Your task to perform on an android device: When is my next meeting? Image 0: 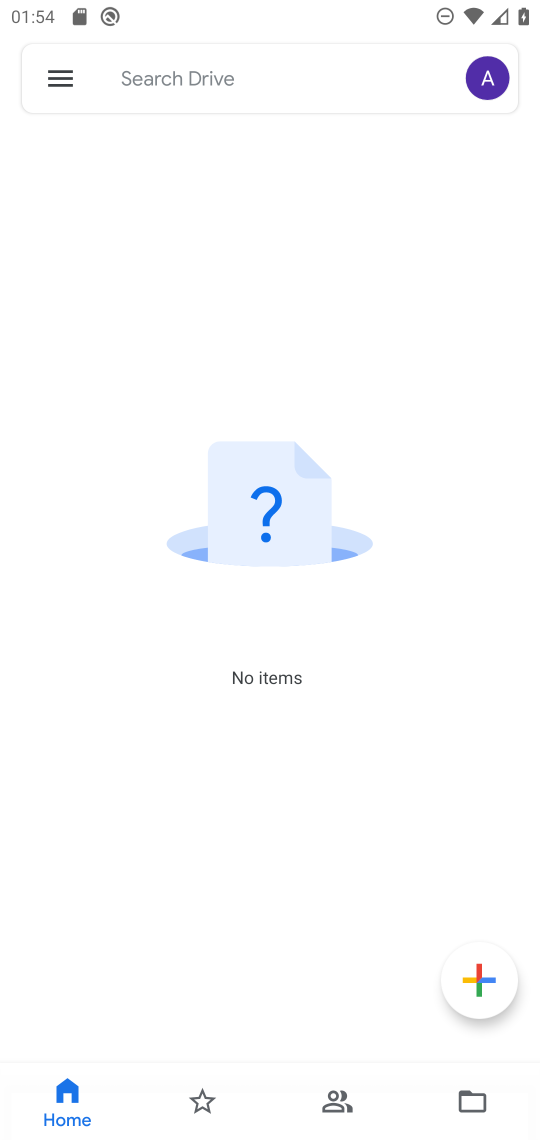
Step 0: press home button
Your task to perform on an android device: When is my next meeting? Image 1: 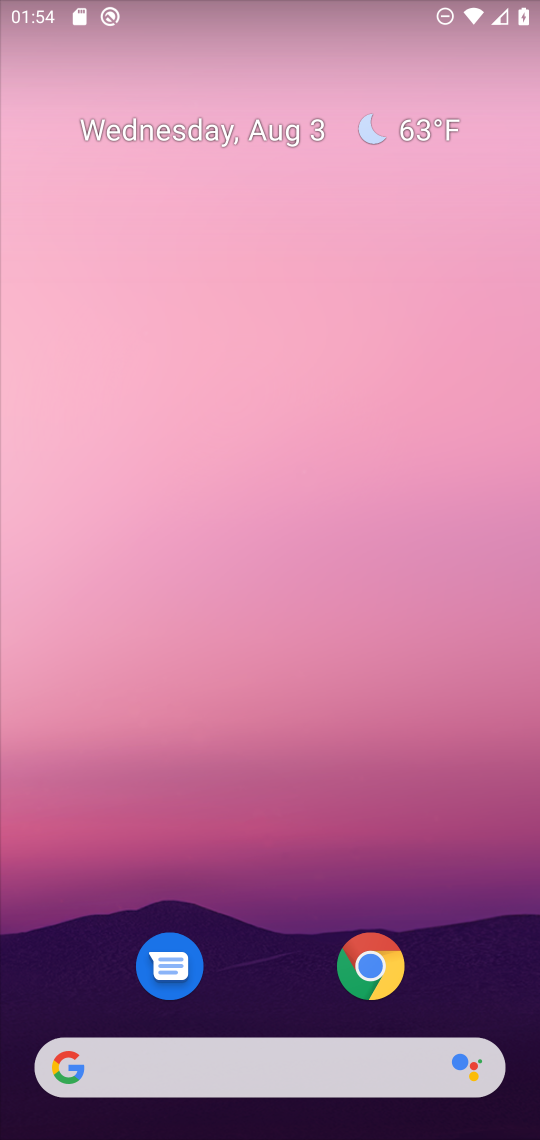
Step 1: drag from (241, 984) to (203, 422)
Your task to perform on an android device: When is my next meeting? Image 2: 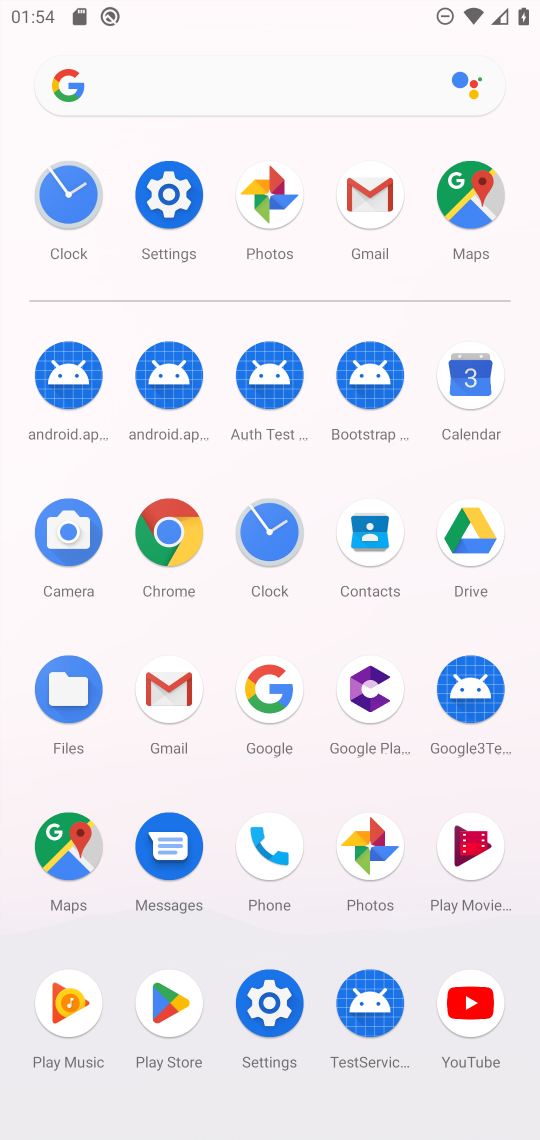
Step 2: click (488, 373)
Your task to perform on an android device: When is my next meeting? Image 3: 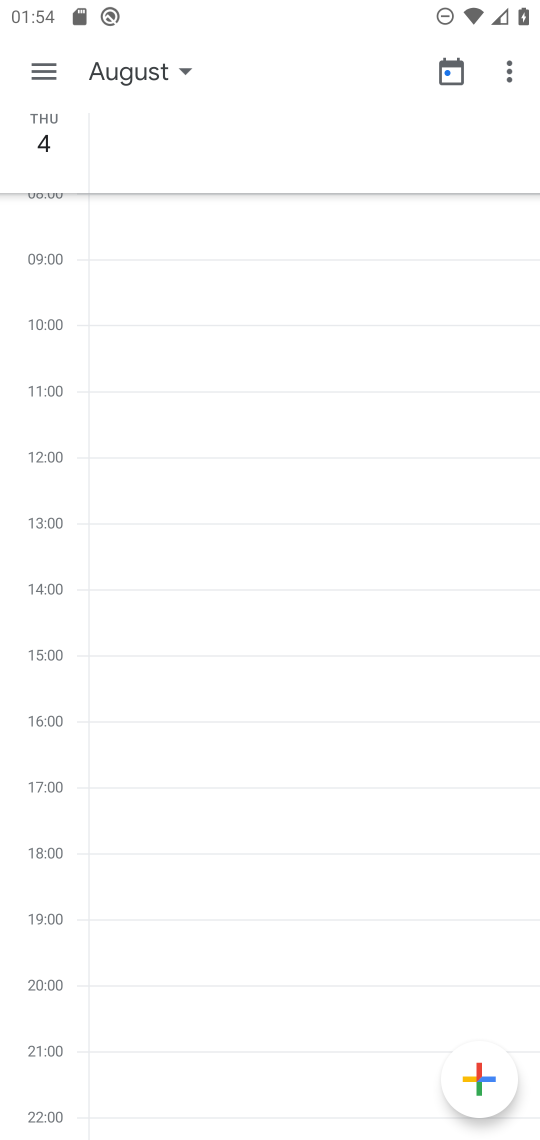
Step 3: click (160, 65)
Your task to perform on an android device: When is my next meeting? Image 4: 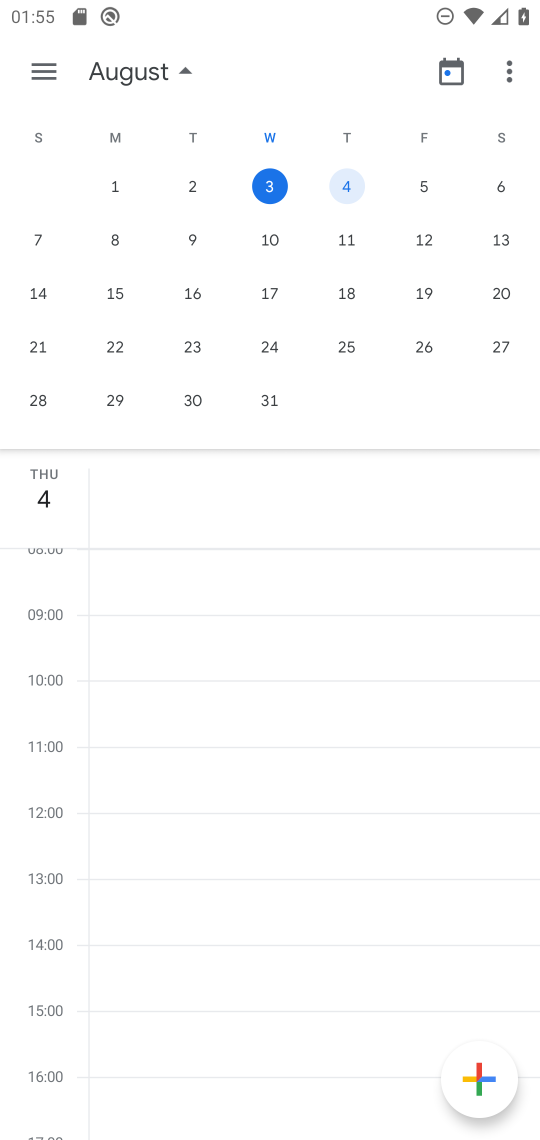
Step 4: click (338, 199)
Your task to perform on an android device: When is my next meeting? Image 5: 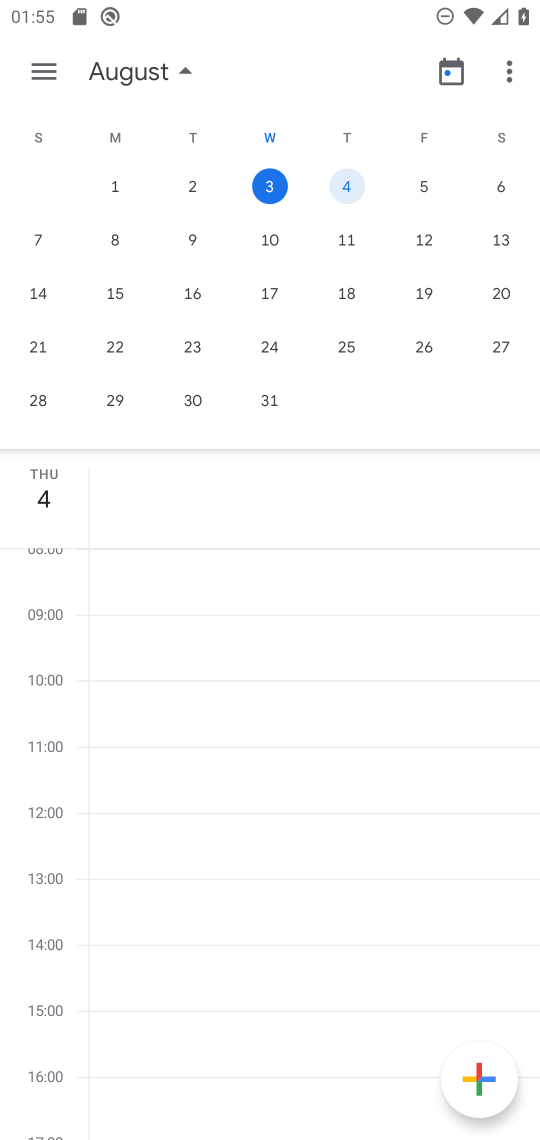
Step 5: click (342, 199)
Your task to perform on an android device: When is my next meeting? Image 6: 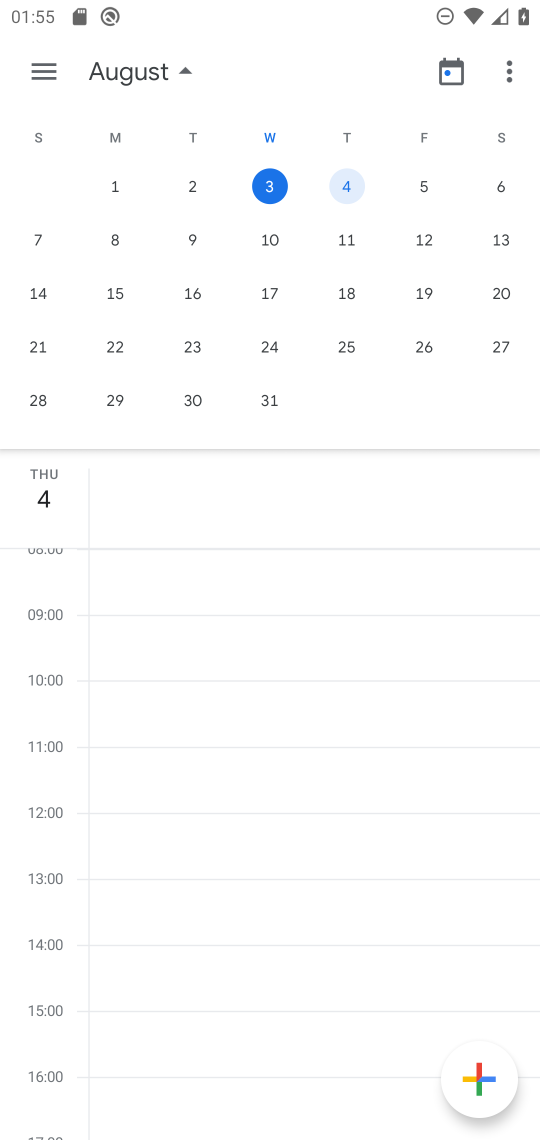
Step 6: click (412, 176)
Your task to perform on an android device: When is my next meeting? Image 7: 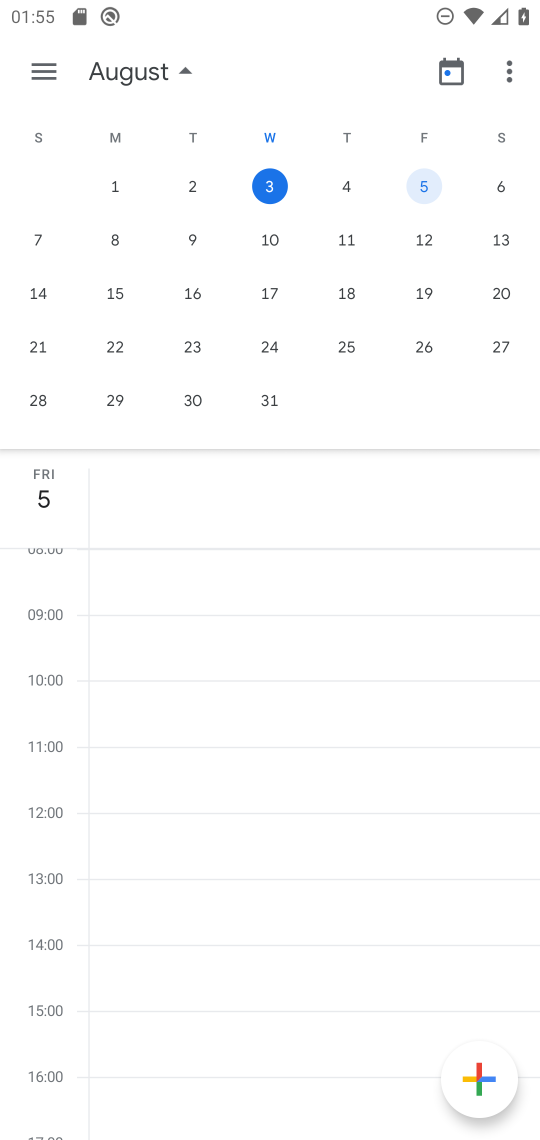
Step 7: click (344, 194)
Your task to perform on an android device: When is my next meeting? Image 8: 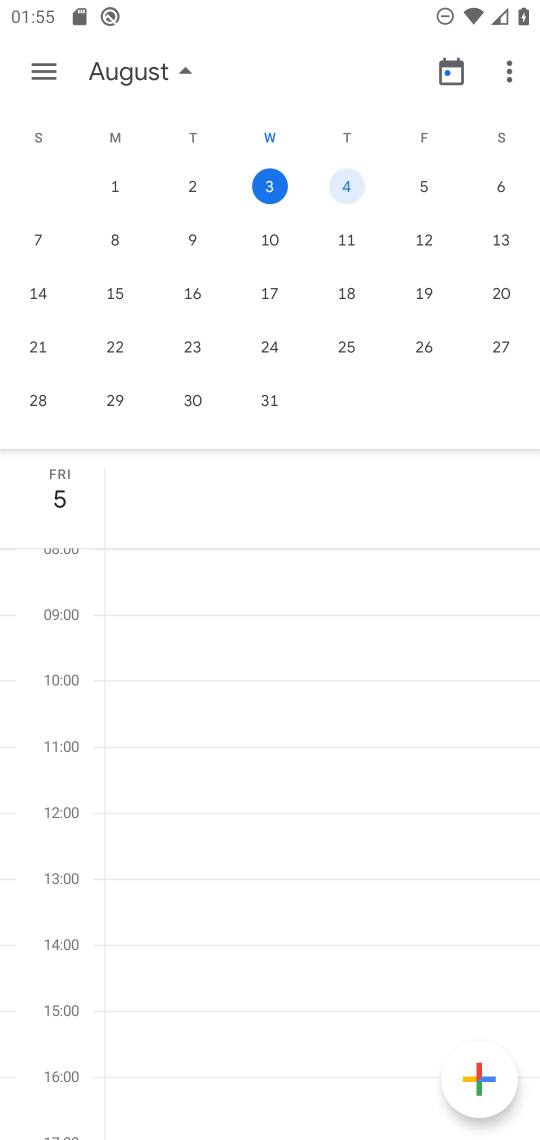
Step 8: click (408, 177)
Your task to perform on an android device: When is my next meeting? Image 9: 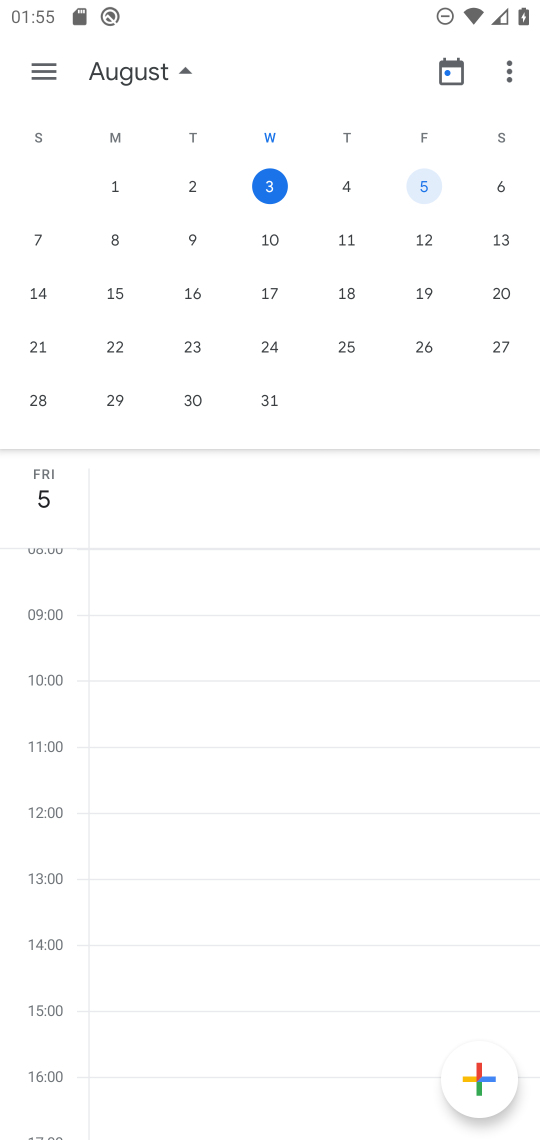
Step 9: task complete